Your task to perform on an android device: Search for vegetarian restaurants on Maps Image 0: 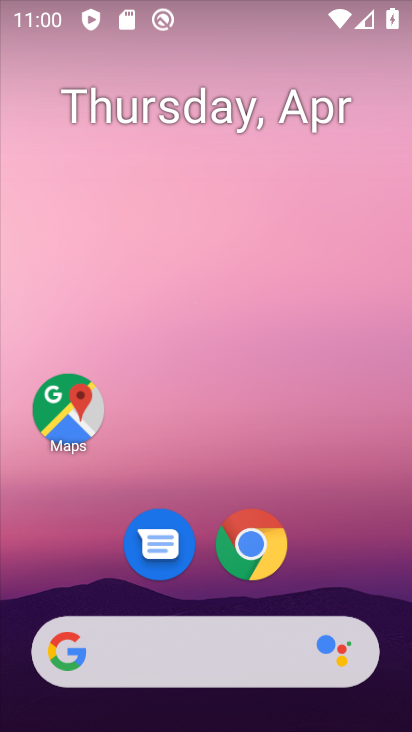
Step 0: click (92, 423)
Your task to perform on an android device: Search for vegetarian restaurants on Maps Image 1: 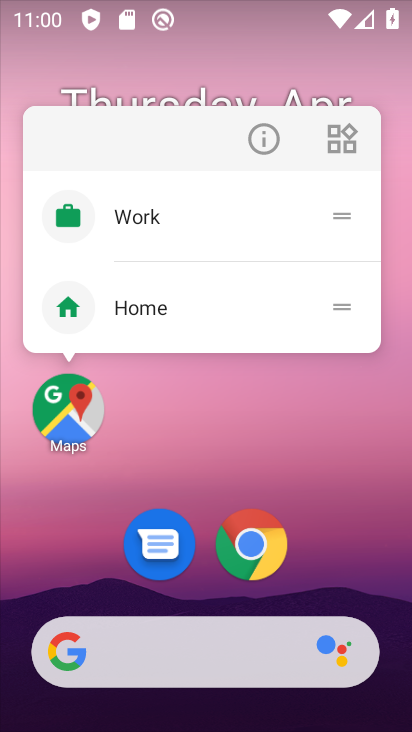
Step 1: click (263, 130)
Your task to perform on an android device: Search for vegetarian restaurants on Maps Image 2: 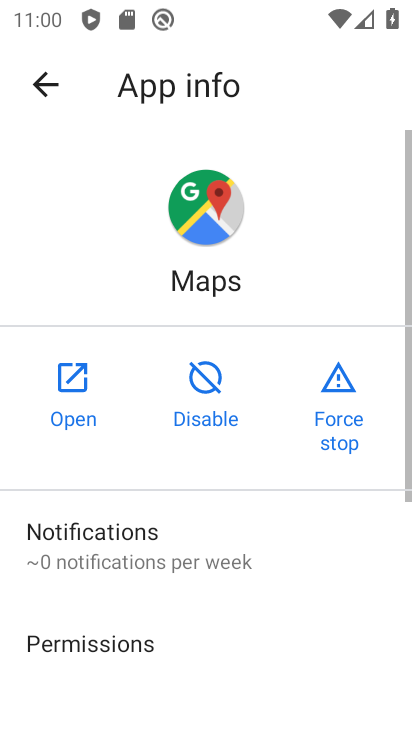
Step 2: click (59, 382)
Your task to perform on an android device: Search for vegetarian restaurants on Maps Image 3: 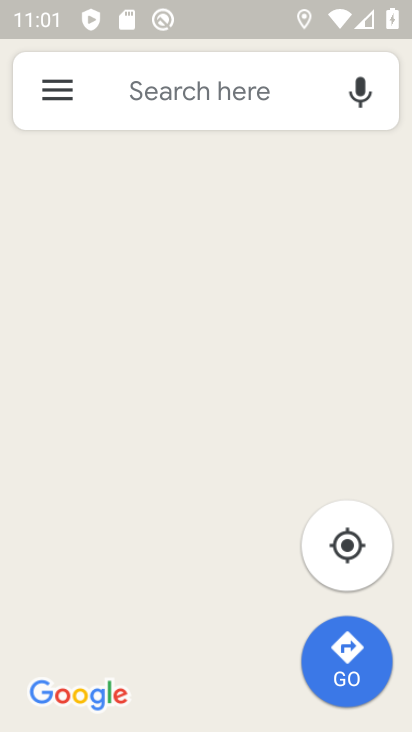
Step 3: click (215, 97)
Your task to perform on an android device: Search for vegetarian restaurants on Maps Image 4: 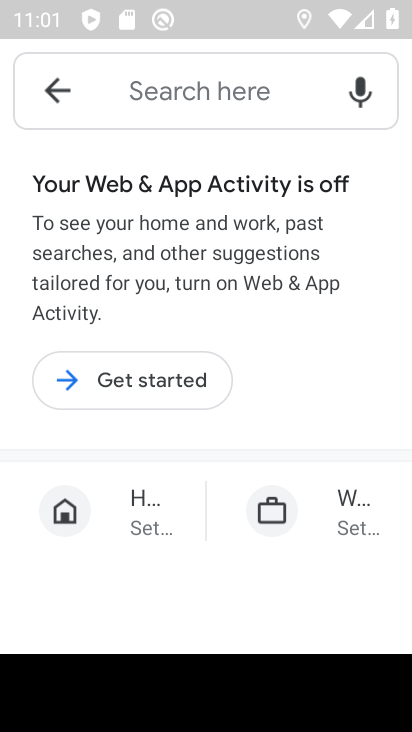
Step 4: click (173, 77)
Your task to perform on an android device: Search for vegetarian restaurants on Maps Image 5: 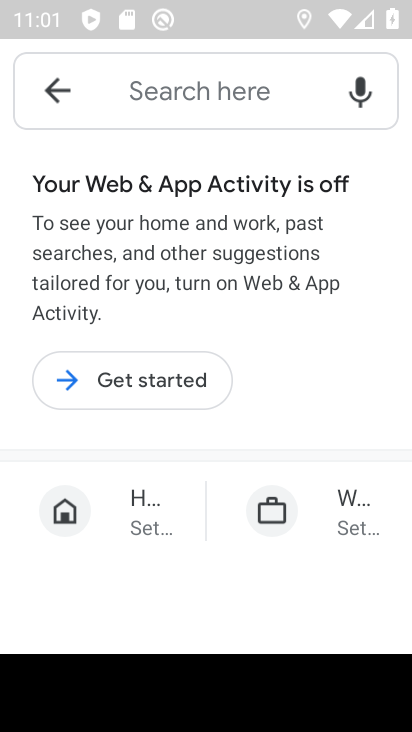
Step 5: click (202, 94)
Your task to perform on an android device: Search for vegetarian restaurants on Maps Image 6: 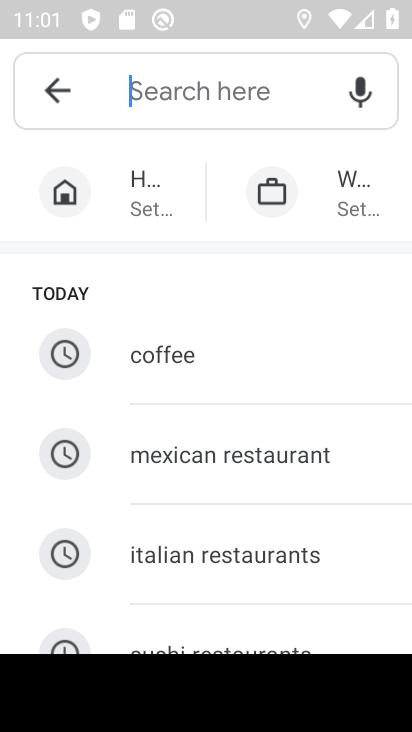
Step 6: click (195, 60)
Your task to perform on an android device: Search for vegetarian restaurants on Maps Image 7: 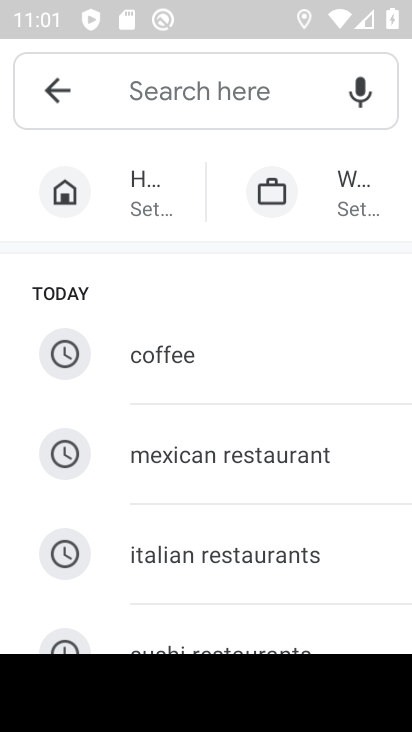
Step 7: click (219, 98)
Your task to perform on an android device: Search for vegetarian restaurants on Maps Image 8: 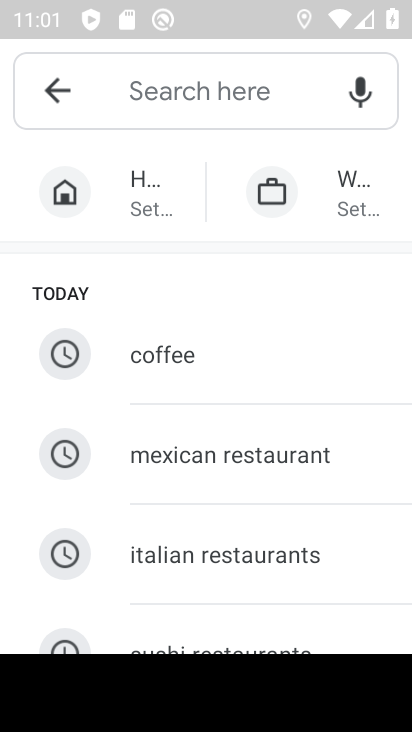
Step 8: type "vegetarian restaurants "
Your task to perform on an android device: Search for vegetarian restaurants on Maps Image 9: 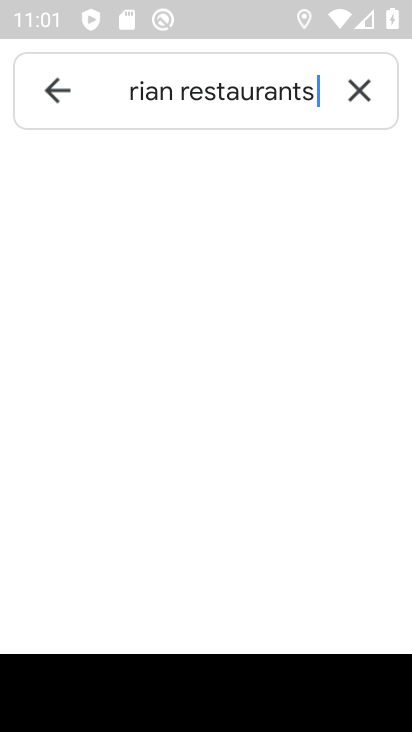
Step 9: type ""
Your task to perform on an android device: Search for vegetarian restaurants on Maps Image 10: 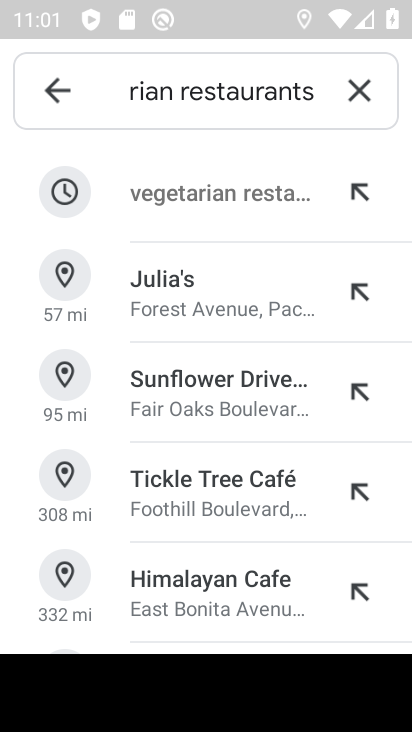
Step 10: click (187, 174)
Your task to perform on an android device: Search for vegetarian restaurants on Maps Image 11: 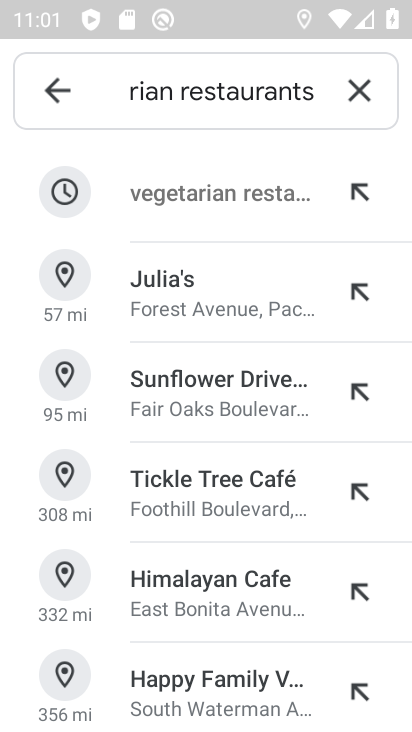
Step 11: click (232, 198)
Your task to perform on an android device: Search for vegetarian restaurants on Maps Image 12: 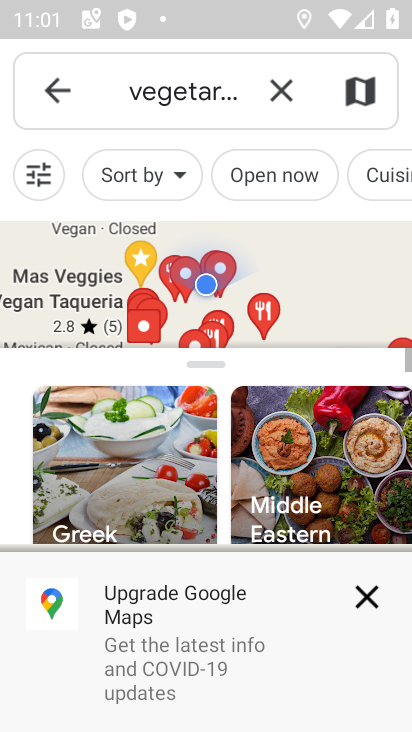
Step 12: task complete